Your task to perform on an android device: Open ESPN.com Image 0: 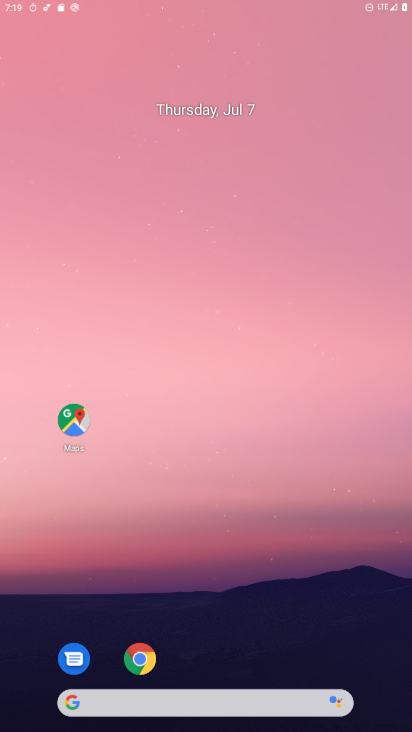
Step 0: click (200, 53)
Your task to perform on an android device: Open ESPN.com Image 1: 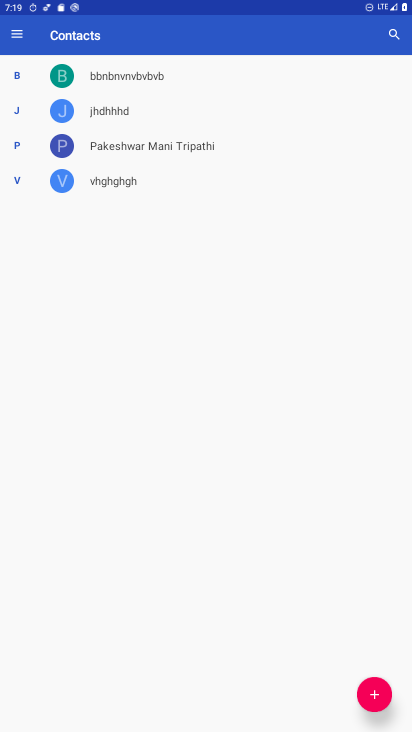
Step 1: press home button
Your task to perform on an android device: Open ESPN.com Image 2: 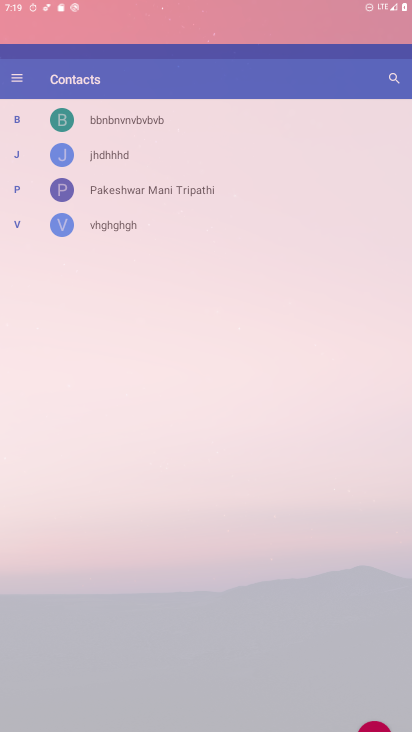
Step 2: drag from (327, 628) to (185, 31)
Your task to perform on an android device: Open ESPN.com Image 3: 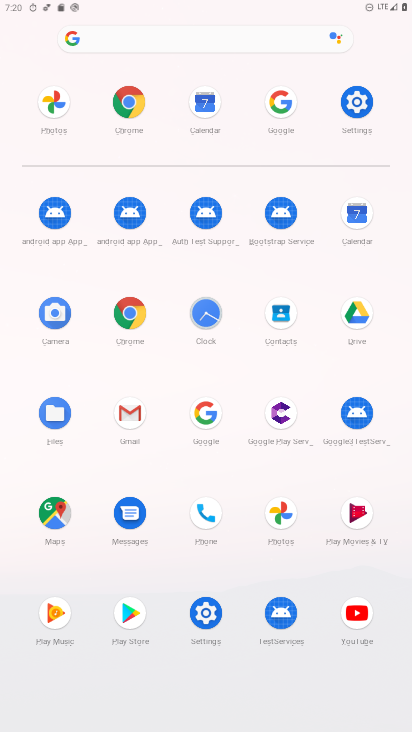
Step 3: click (196, 440)
Your task to perform on an android device: Open ESPN.com Image 4: 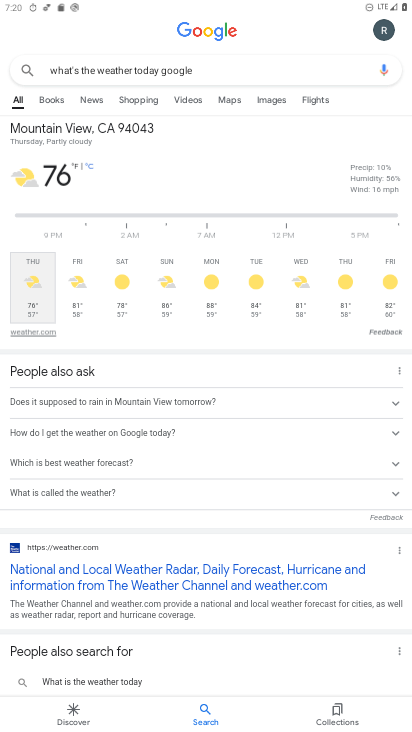
Step 4: press back button
Your task to perform on an android device: Open ESPN.com Image 5: 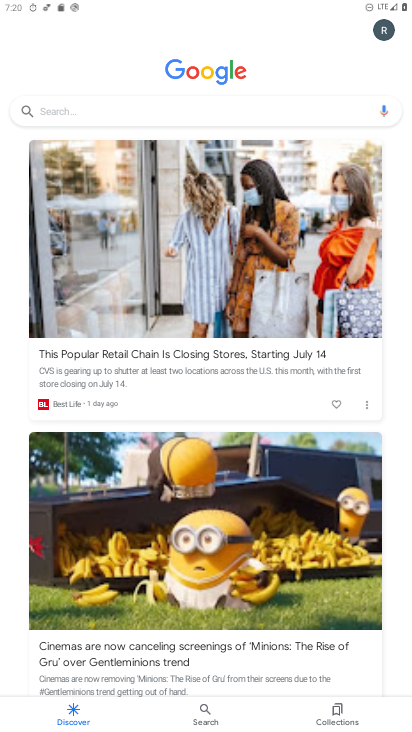
Step 5: click (91, 103)
Your task to perform on an android device: Open ESPN.com Image 6: 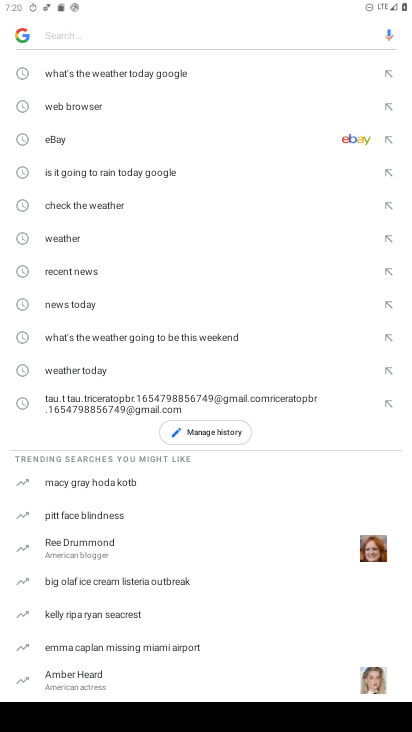
Step 6: type "ESPN.com"
Your task to perform on an android device: Open ESPN.com Image 7: 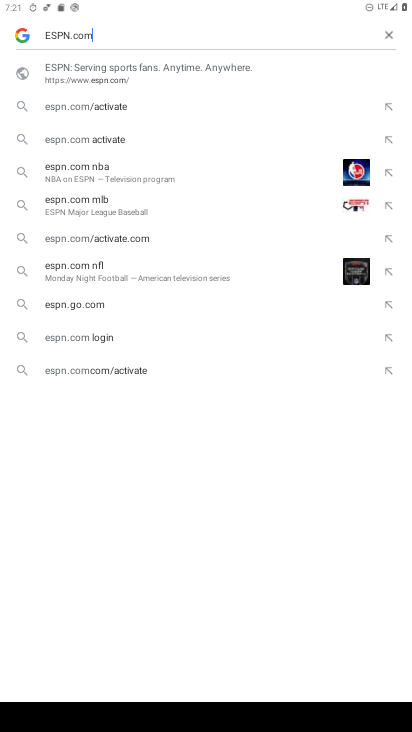
Step 7: click (147, 99)
Your task to perform on an android device: Open ESPN.com Image 8: 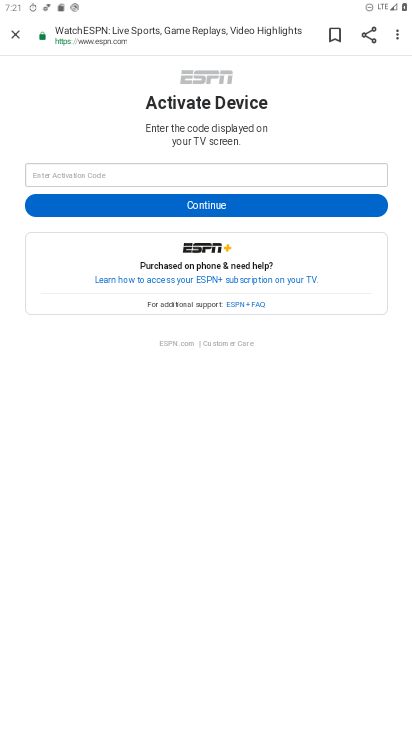
Step 8: task complete